Your task to perform on an android device: Open calendar and show me the third week of next month Image 0: 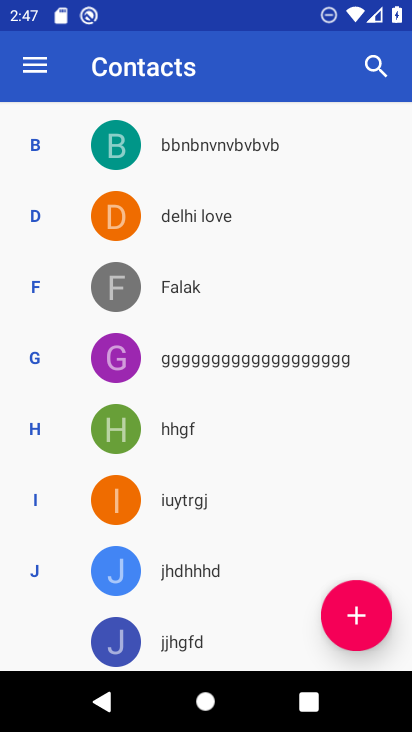
Step 0: press home button
Your task to perform on an android device: Open calendar and show me the third week of next month Image 1: 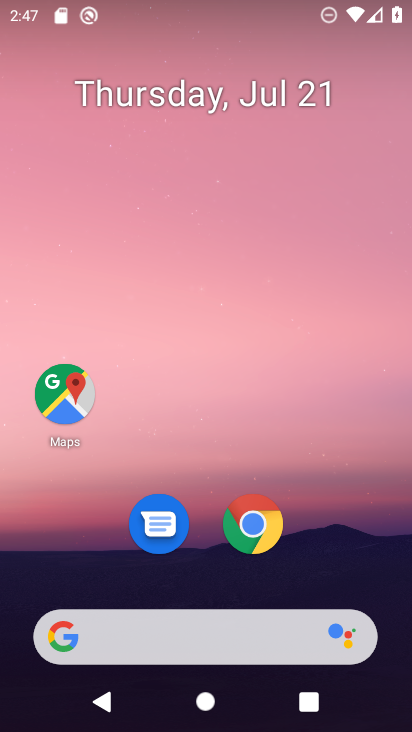
Step 1: drag from (155, 636) to (325, 64)
Your task to perform on an android device: Open calendar and show me the third week of next month Image 2: 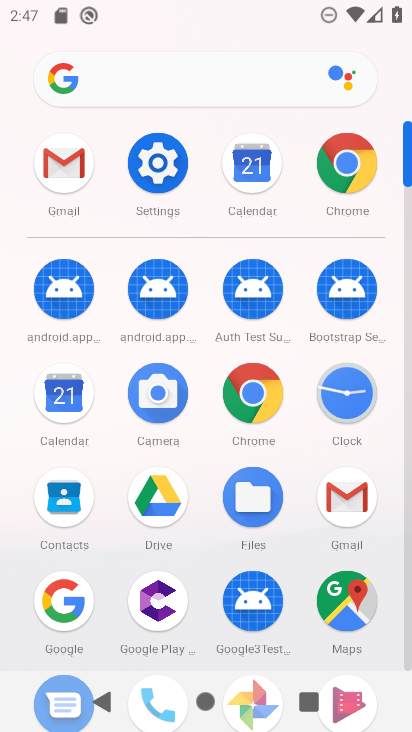
Step 2: click (60, 393)
Your task to perform on an android device: Open calendar and show me the third week of next month Image 3: 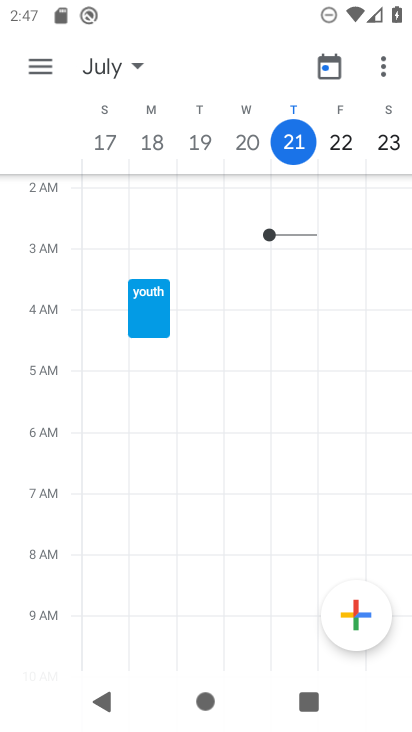
Step 3: click (111, 73)
Your task to perform on an android device: Open calendar and show me the third week of next month Image 4: 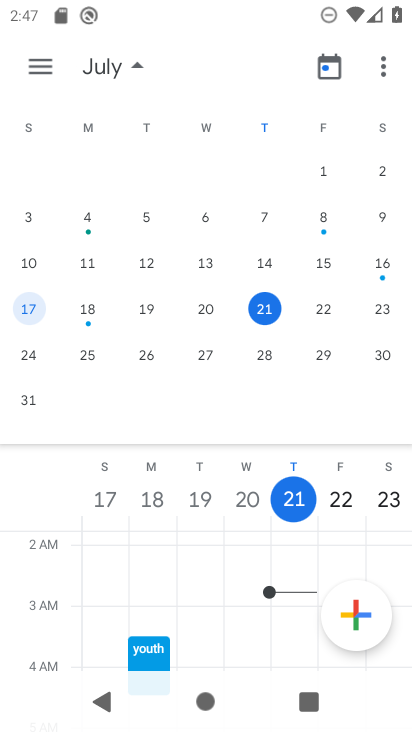
Step 4: drag from (343, 248) to (0, 240)
Your task to perform on an android device: Open calendar and show me the third week of next month Image 5: 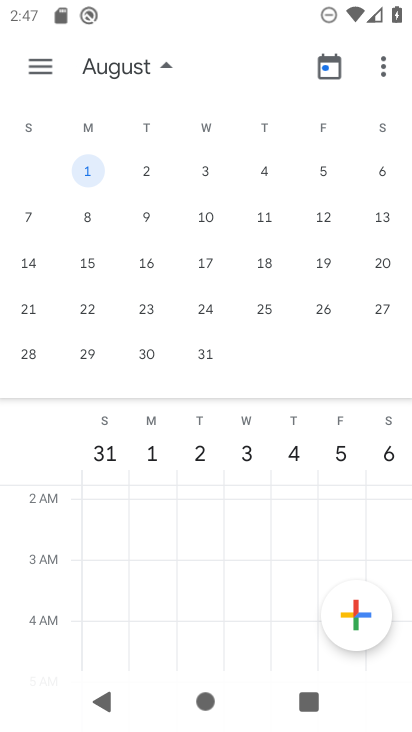
Step 5: click (31, 265)
Your task to perform on an android device: Open calendar and show me the third week of next month Image 6: 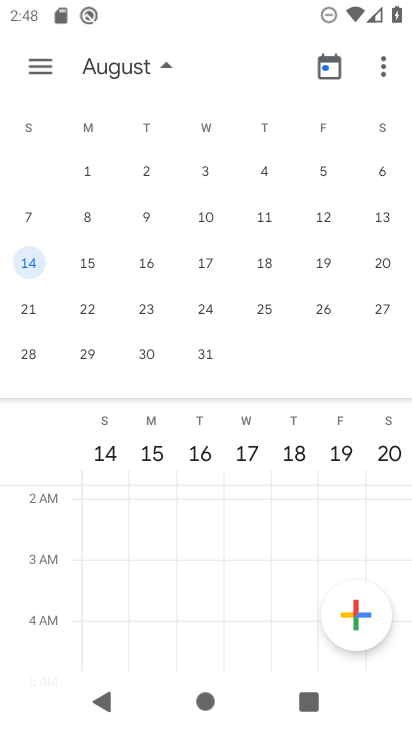
Step 6: drag from (90, 375) to (226, 2)
Your task to perform on an android device: Open calendar and show me the third week of next month Image 7: 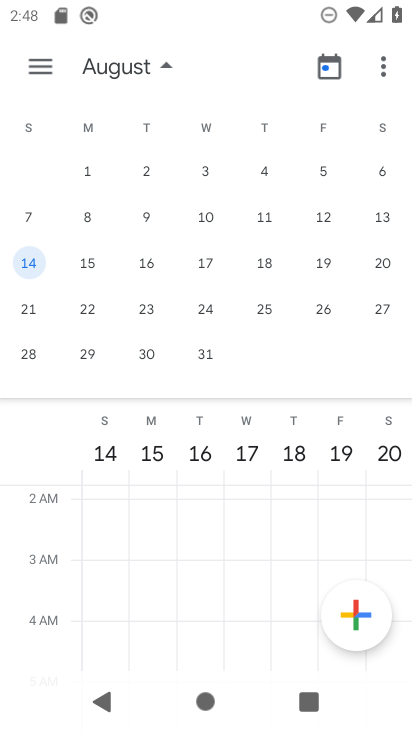
Step 7: click (32, 59)
Your task to perform on an android device: Open calendar and show me the third week of next month Image 8: 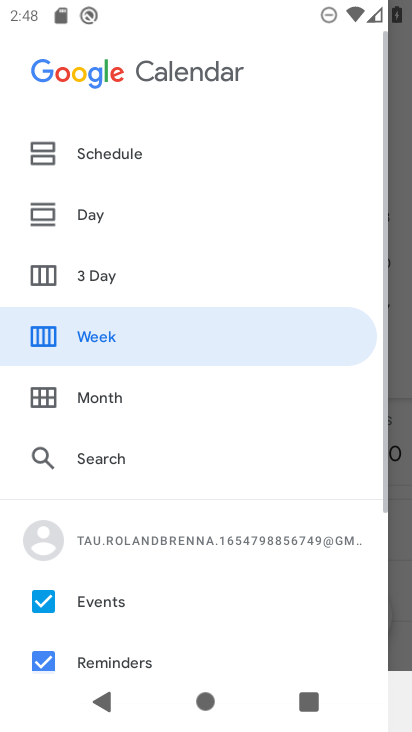
Step 8: click (76, 336)
Your task to perform on an android device: Open calendar and show me the third week of next month Image 9: 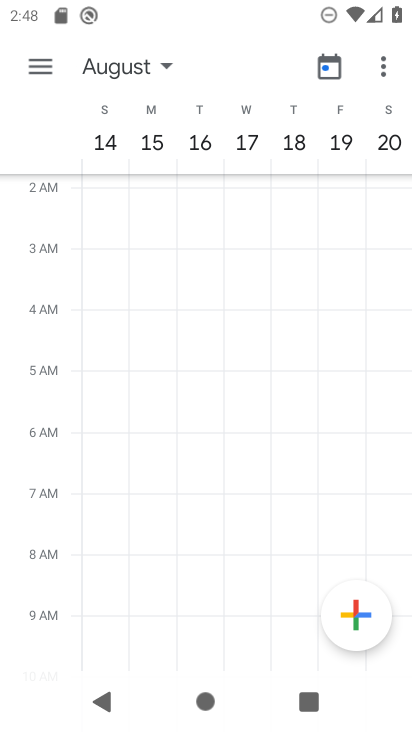
Step 9: task complete